Your task to perform on an android device: turn off translation in the chrome app Image 0: 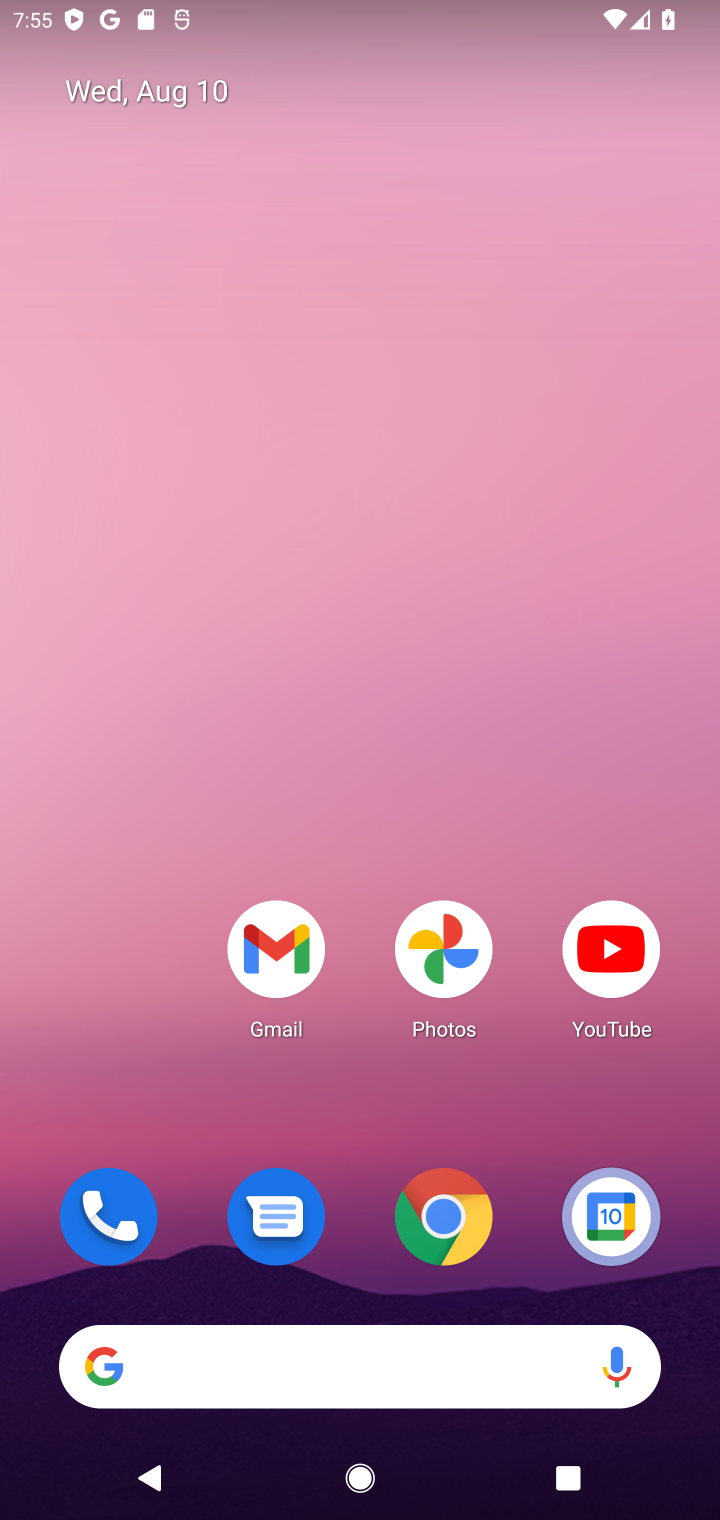
Step 0: click (469, 1206)
Your task to perform on an android device: turn off translation in the chrome app Image 1: 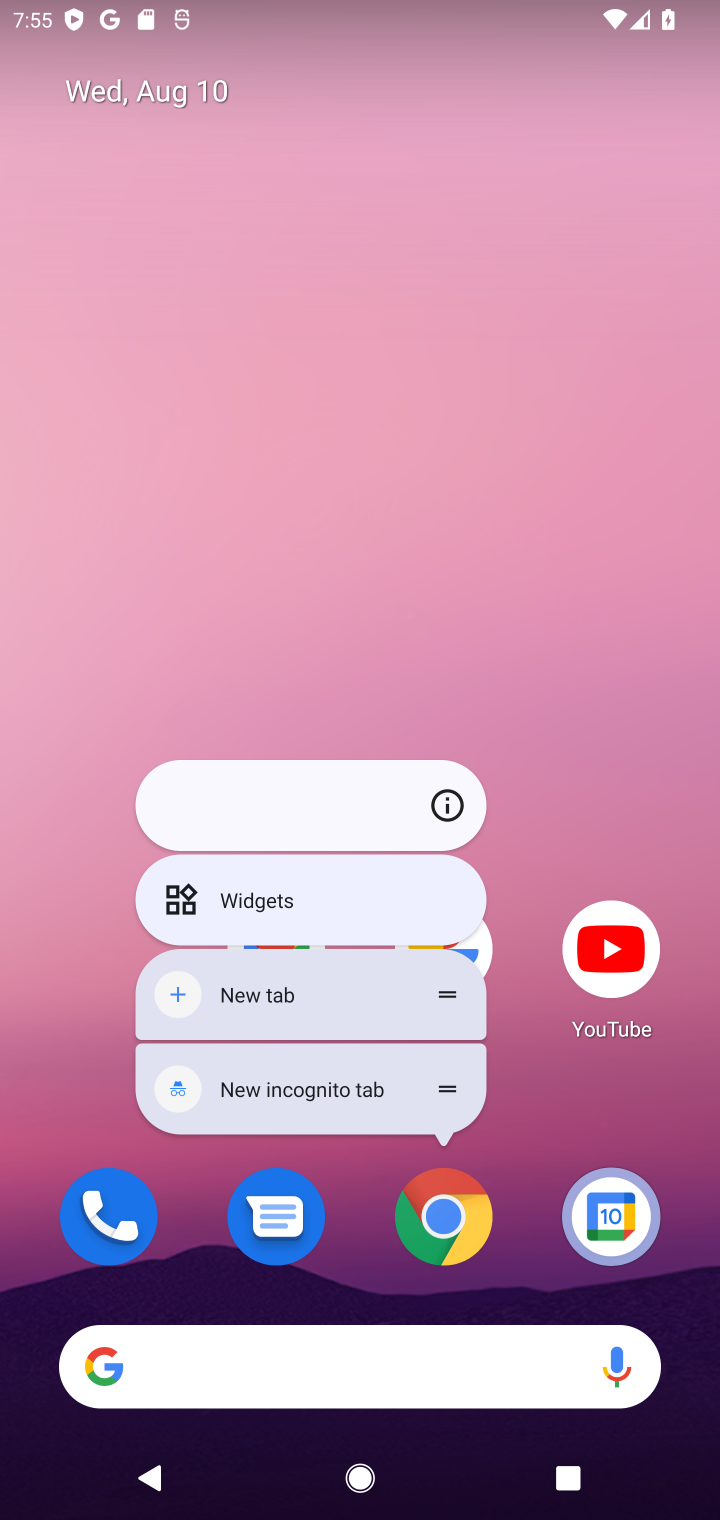
Step 1: click (467, 1200)
Your task to perform on an android device: turn off translation in the chrome app Image 2: 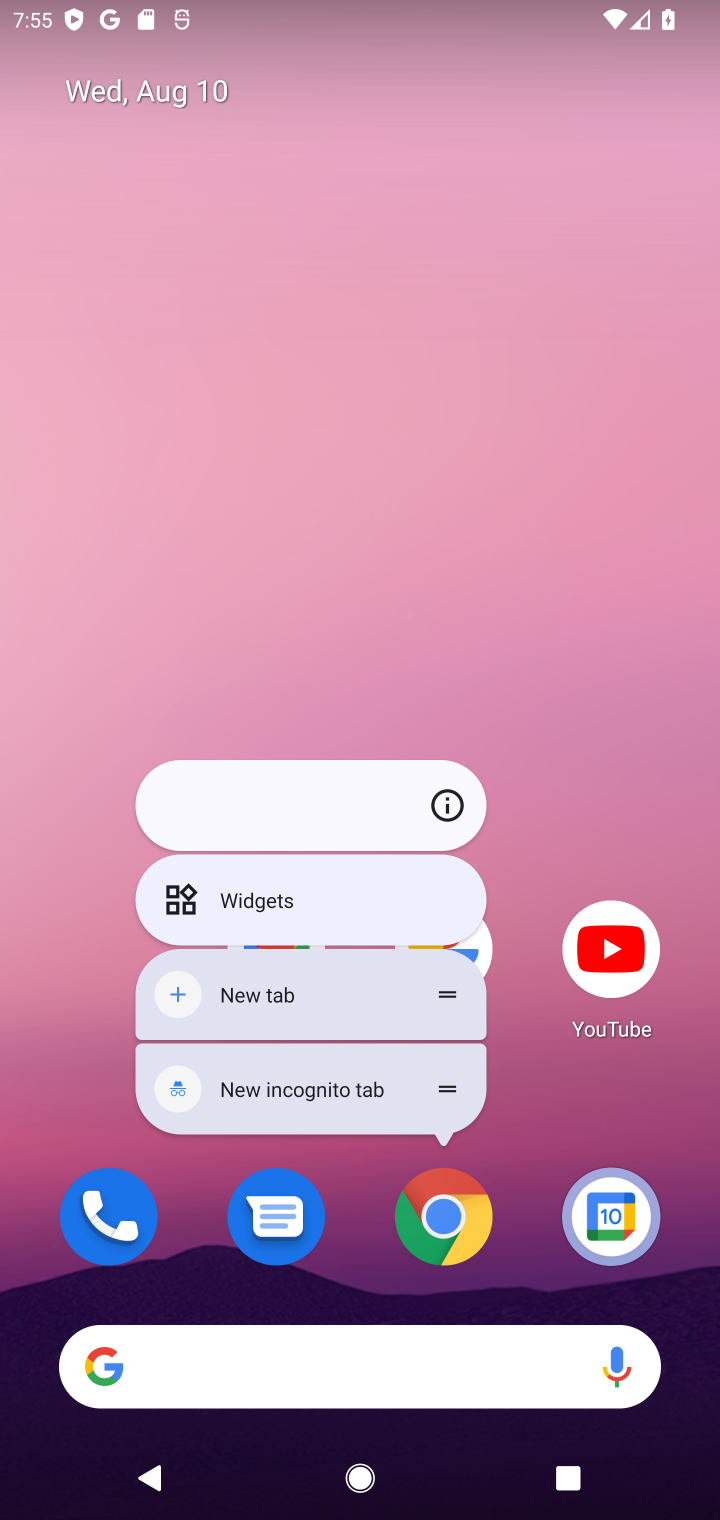
Step 2: click (440, 1230)
Your task to perform on an android device: turn off translation in the chrome app Image 3: 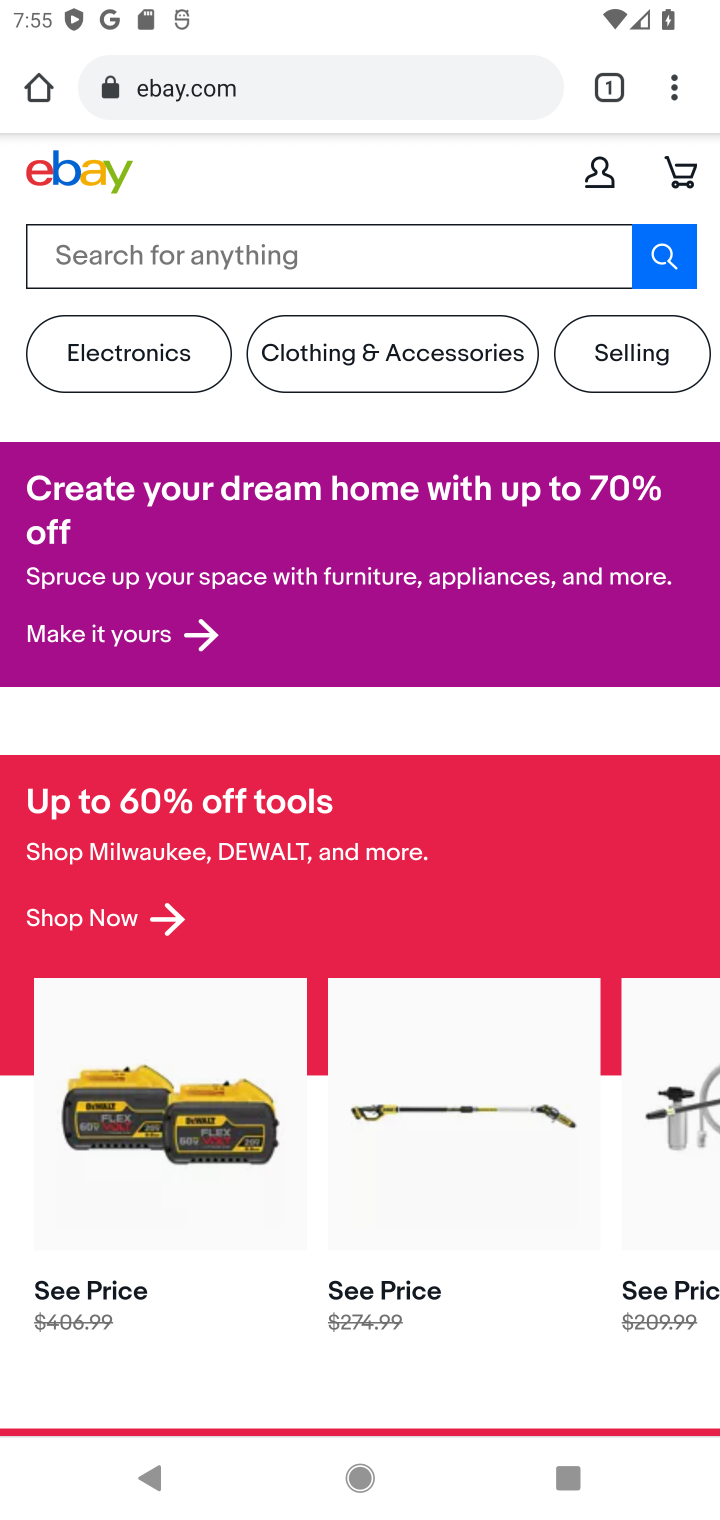
Step 3: click (679, 87)
Your task to perform on an android device: turn off translation in the chrome app Image 4: 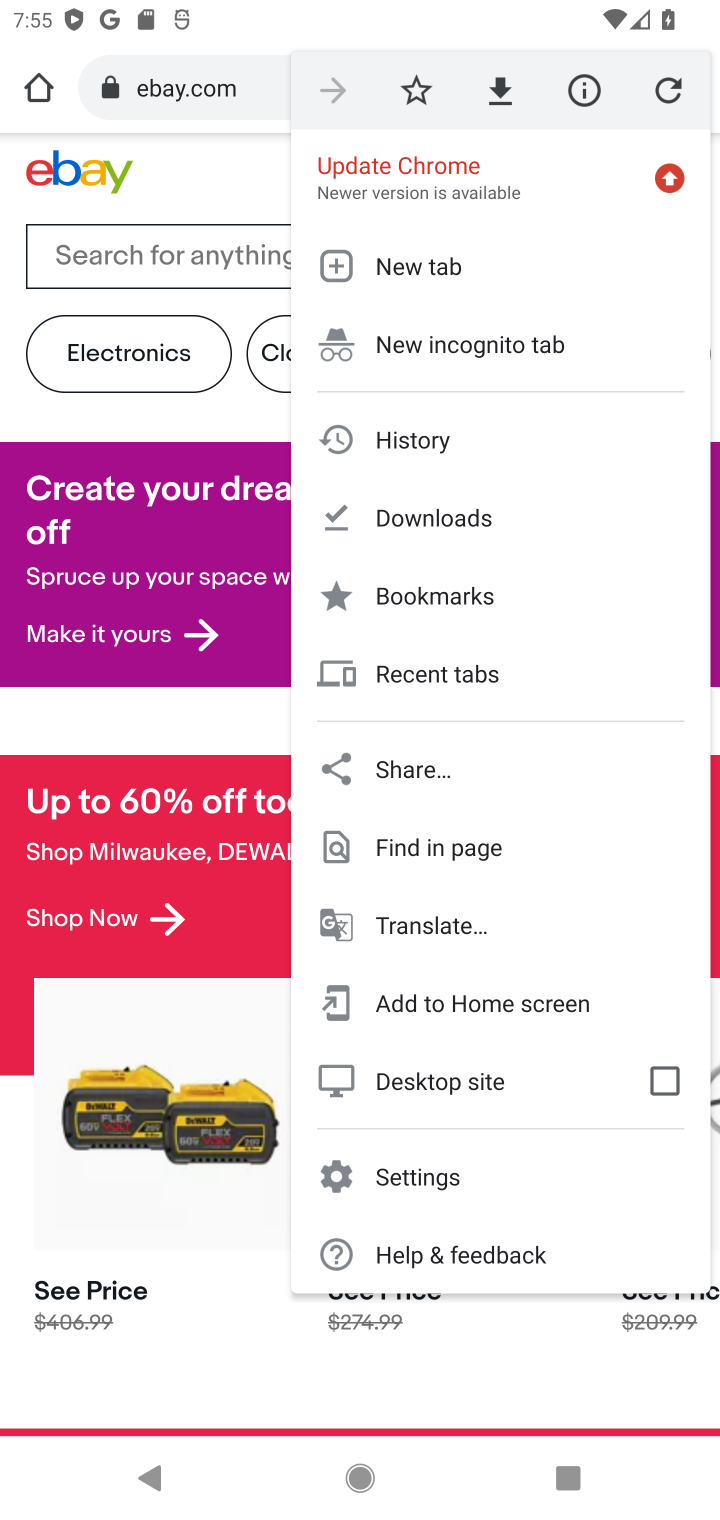
Step 4: click (463, 1182)
Your task to perform on an android device: turn off translation in the chrome app Image 5: 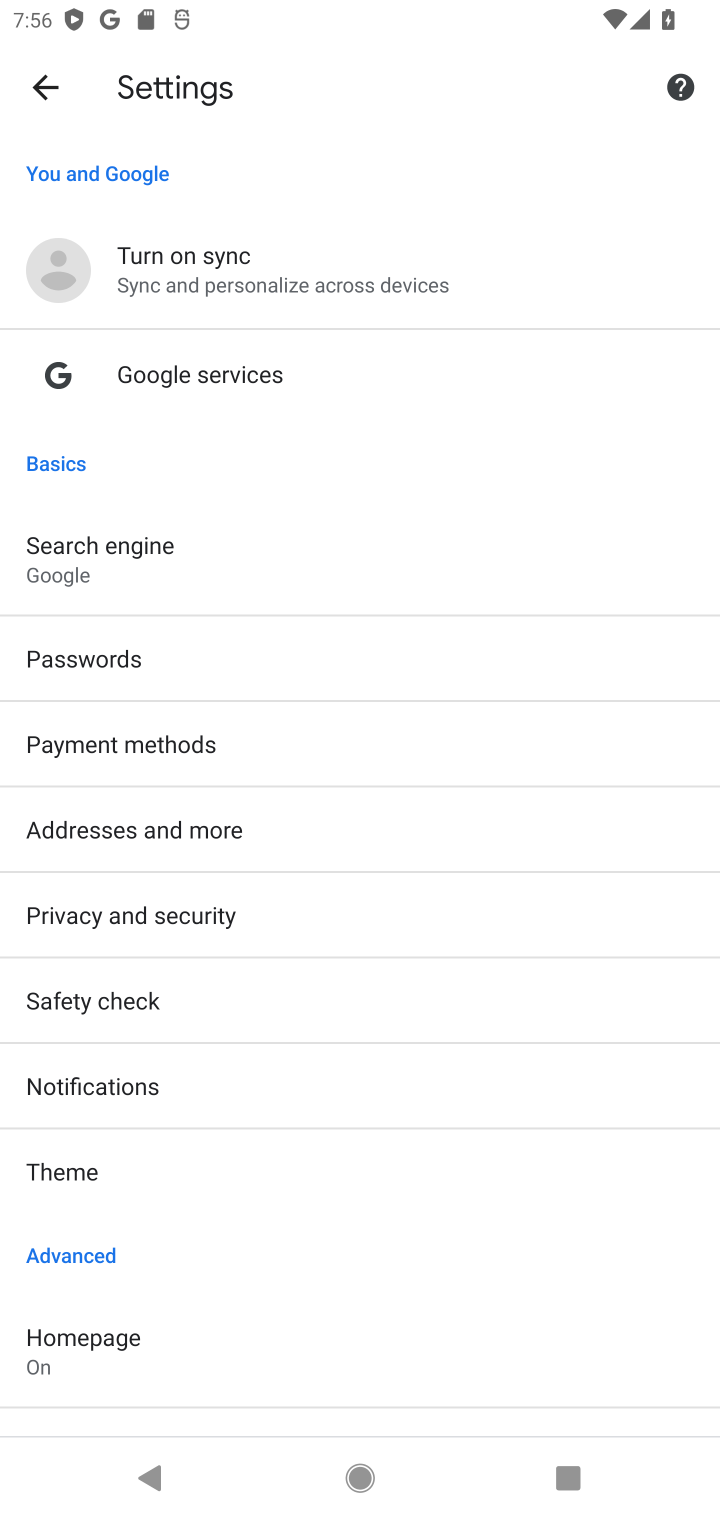
Step 5: drag from (31, 1019) to (261, 175)
Your task to perform on an android device: turn off translation in the chrome app Image 6: 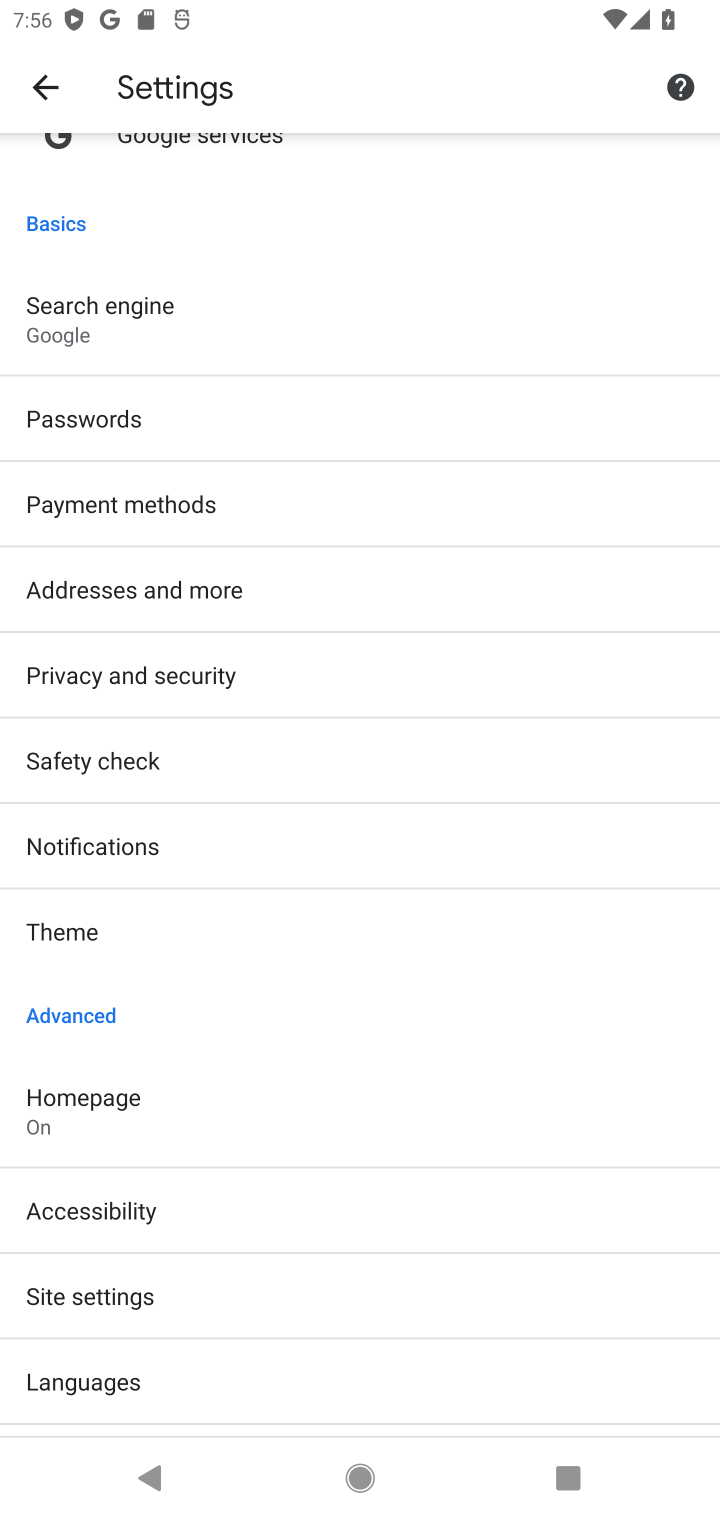
Step 6: click (112, 1397)
Your task to perform on an android device: turn off translation in the chrome app Image 7: 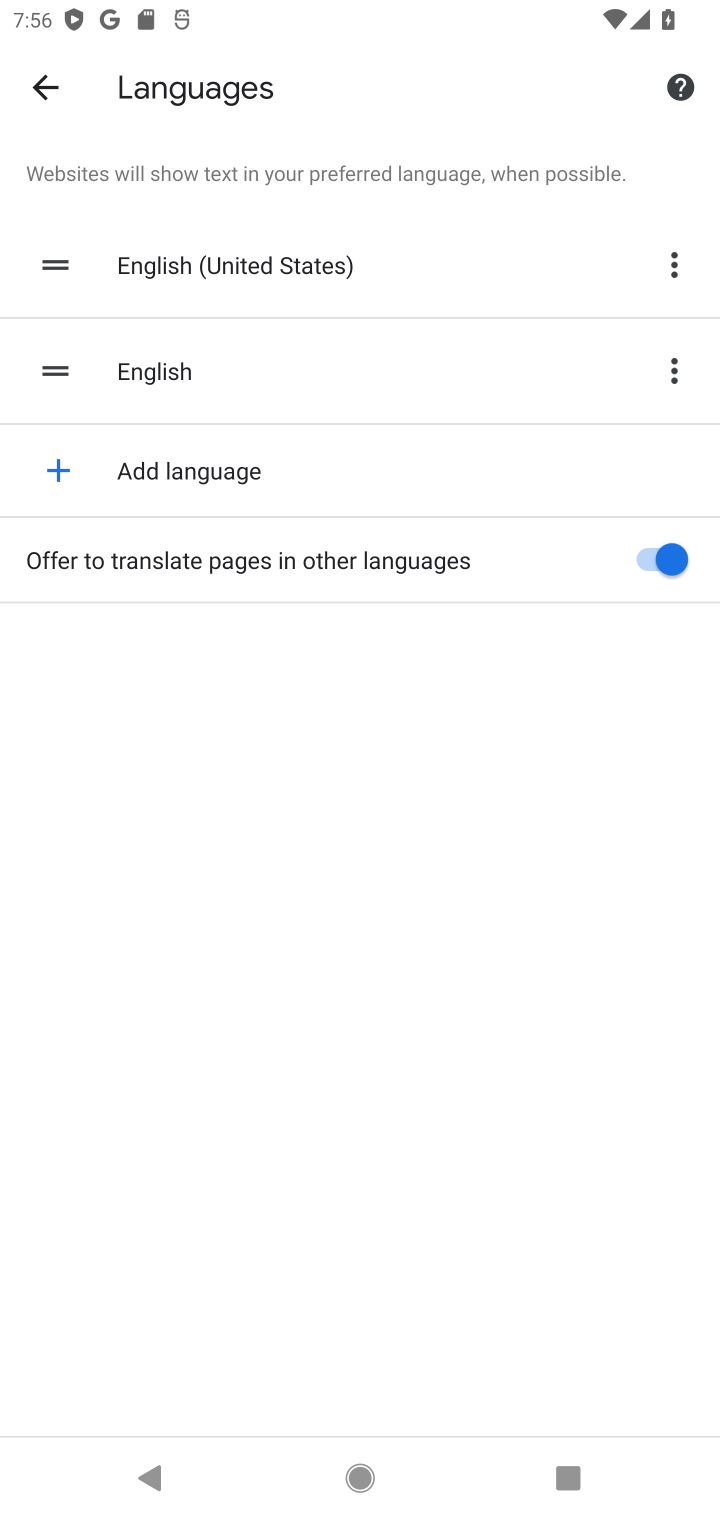
Step 7: click (680, 569)
Your task to perform on an android device: turn off translation in the chrome app Image 8: 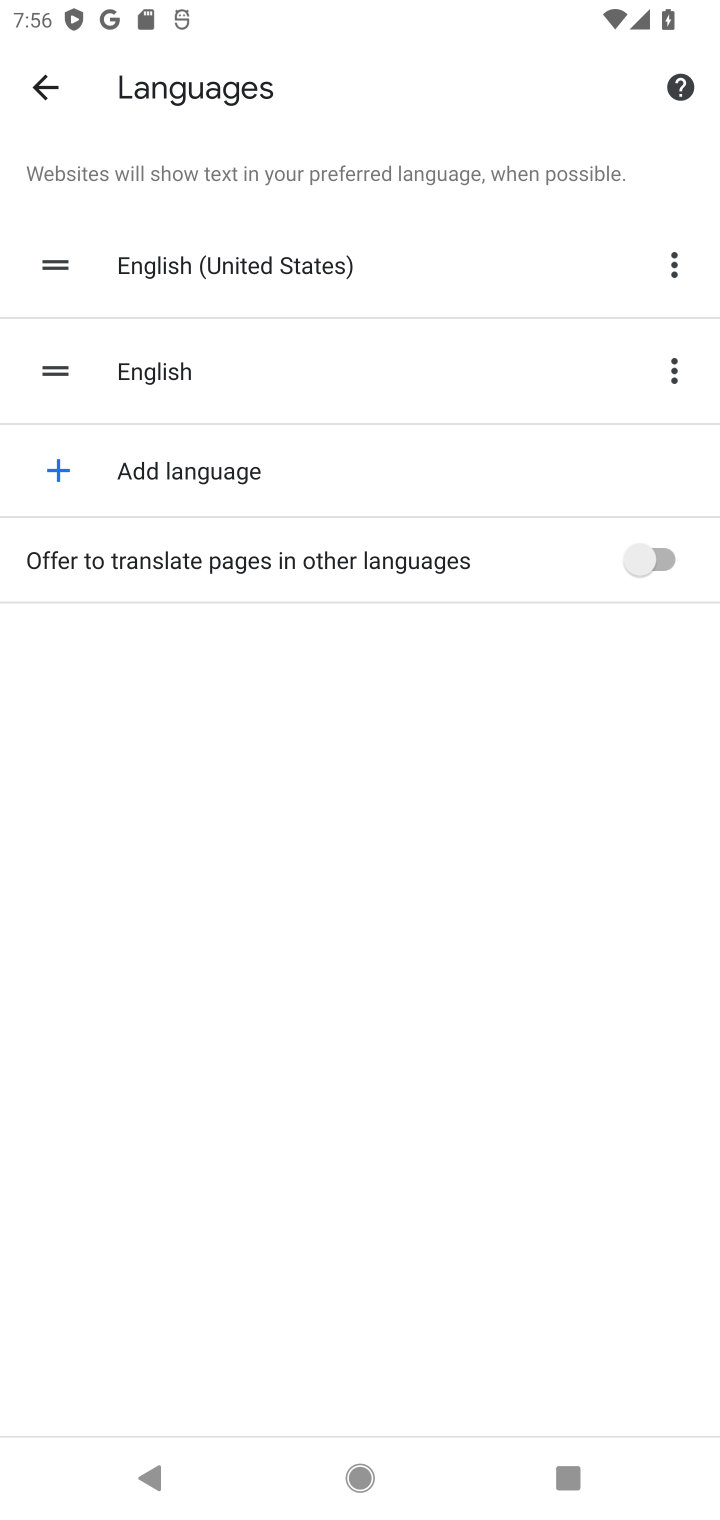
Step 8: task complete